Your task to perform on an android device: What's the weather? Image 0: 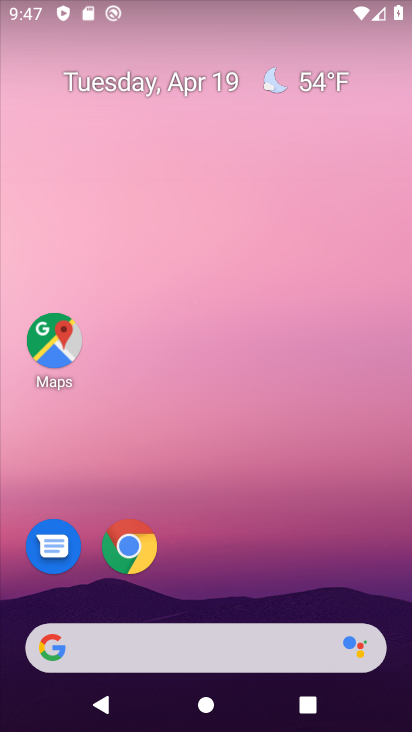
Step 0: click (174, 160)
Your task to perform on an android device: What's the weather? Image 1: 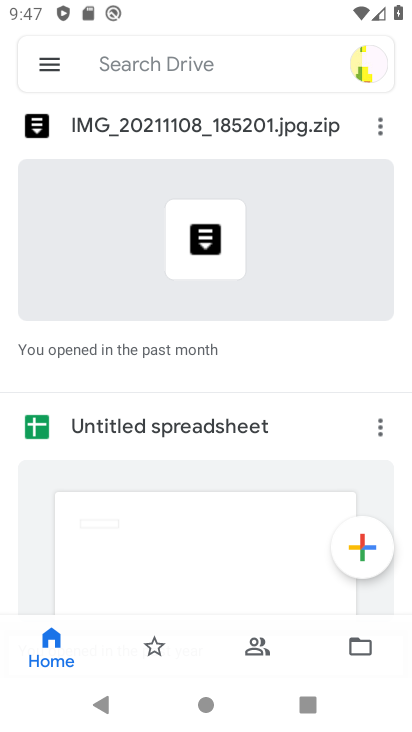
Step 1: press home button
Your task to perform on an android device: What's the weather? Image 2: 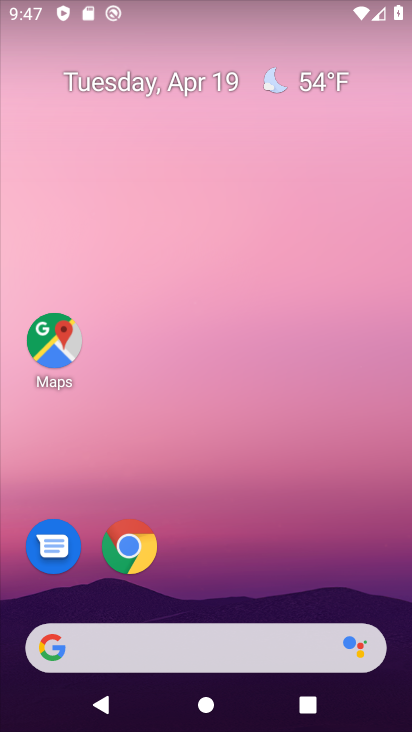
Step 2: drag from (252, 711) to (176, 163)
Your task to perform on an android device: What's the weather? Image 3: 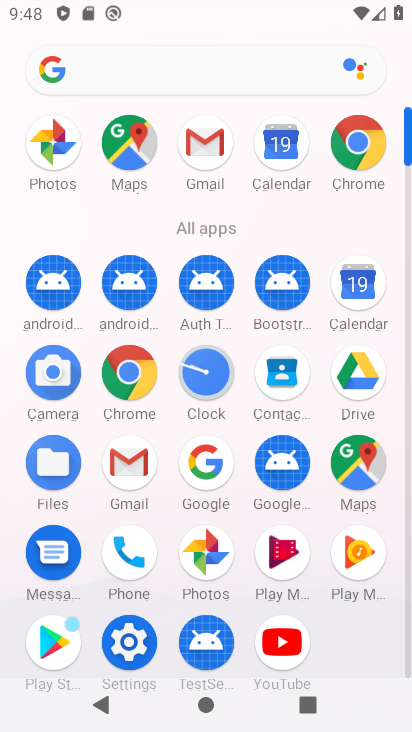
Step 3: click (213, 470)
Your task to perform on an android device: What's the weather? Image 4: 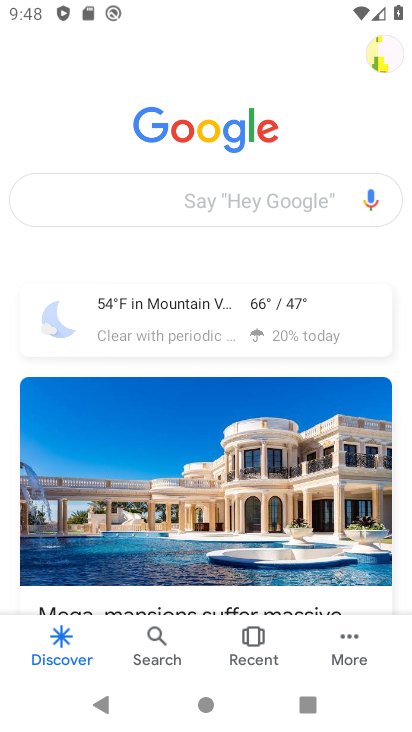
Step 4: click (286, 206)
Your task to perform on an android device: What's the weather? Image 5: 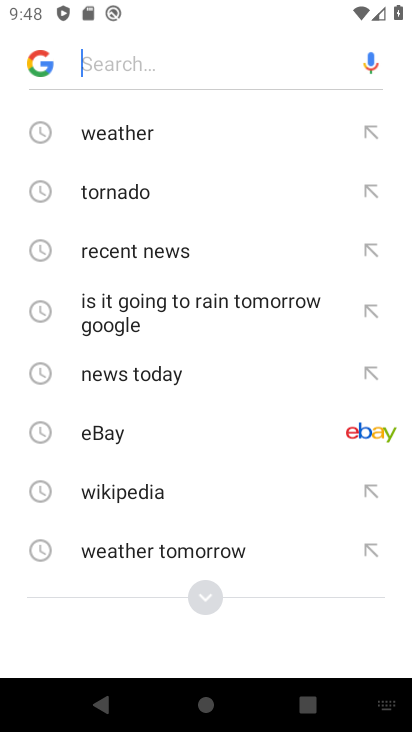
Step 5: type "What's the weather?"
Your task to perform on an android device: What's the weather? Image 6: 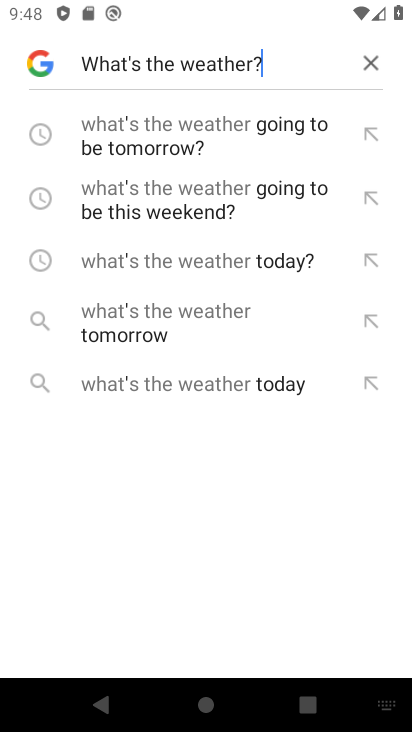
Step 6: click (288, 253)
Your task to perform on an android device: What's the weather? Image 7: 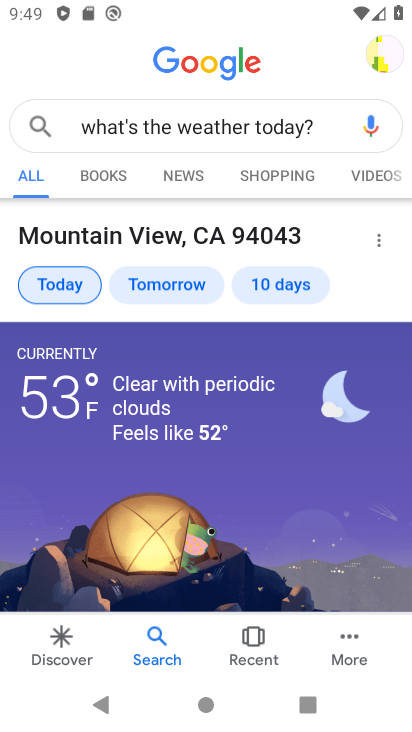
Step 7: task complete